Your task to perform on an android device: Open Wikipedia Image 0: 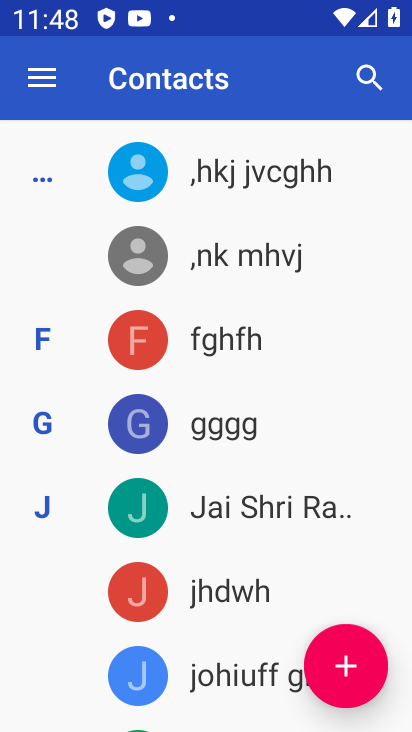
Step 0: press home button
Your task to perform on an android device: Open Wikipedia Image 1: 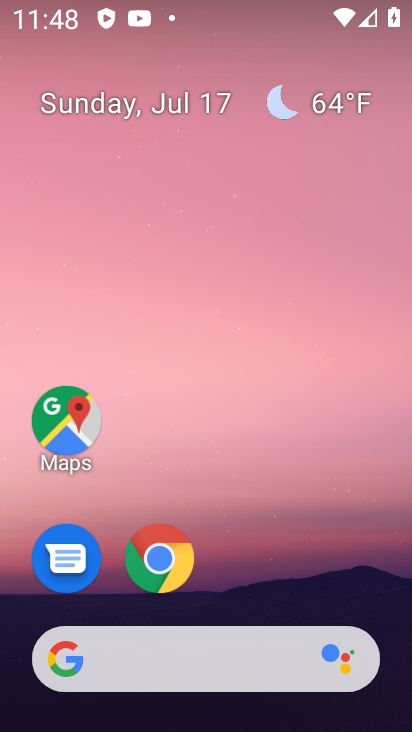
Step 1: drag from (358, 564) to (369, 80)
Your task to perform on an android device: Open Wikipedia Image 2: 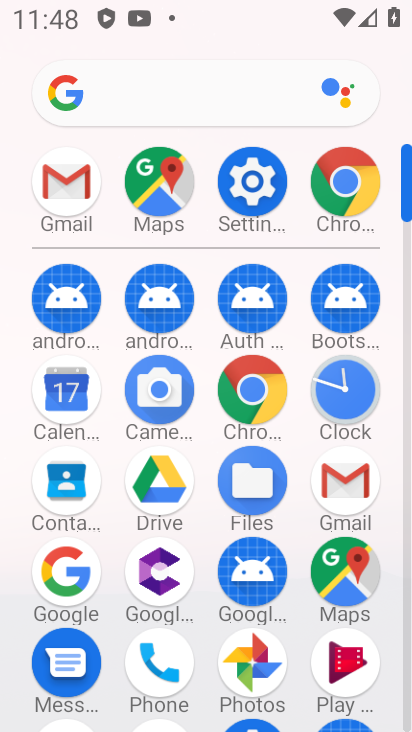
Step 2: click (254, 381)
Your task to perform on an android device: Open Wikipedia Image 3: 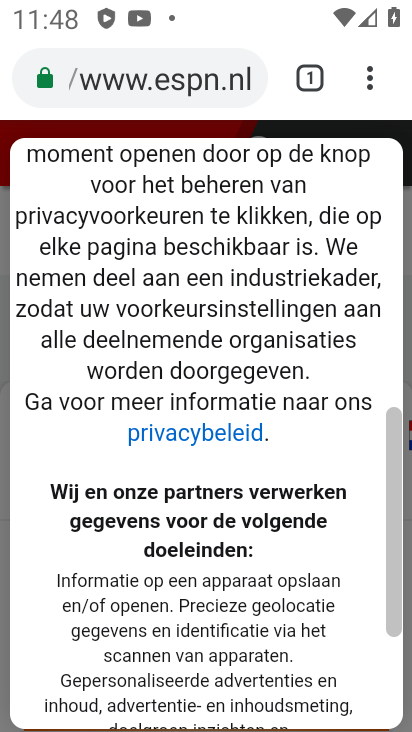
Step 3: click (218, 75)
Your task to perform on an android device: Open Wikipedia Image 4: 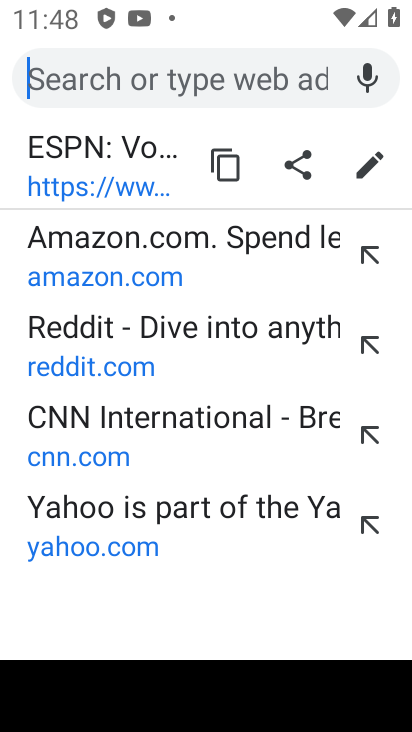
Step 4: type "wikipedia"
Your task to perform on an android device: Open Wikipedia Image 5: 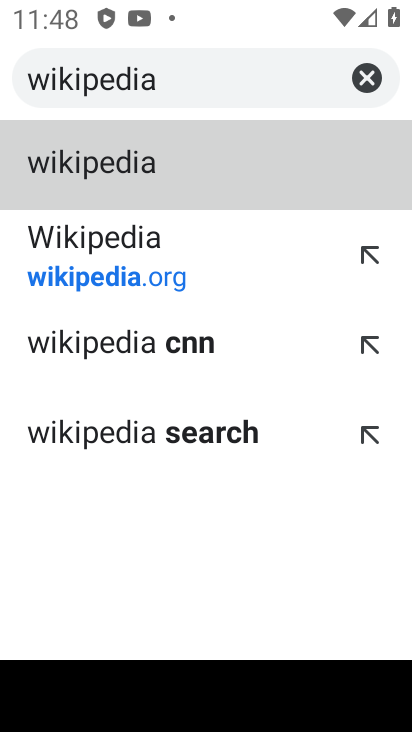
Step 5: click (157, 180)
Your task to perform on an android device: Open Wikipedia Image 6: 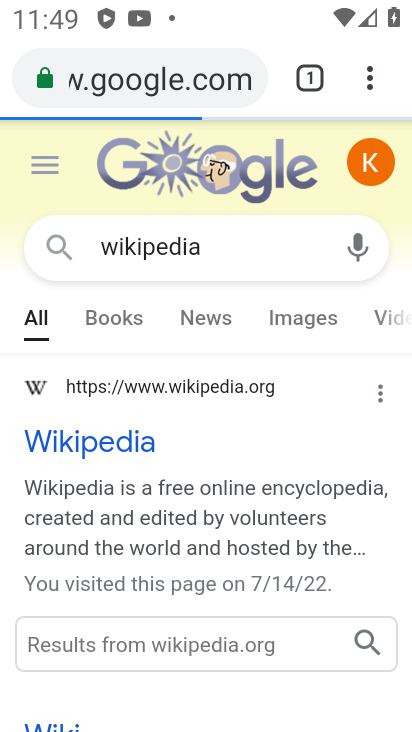
Step 6: task complete